Your task to perform on an android device: What's on my calendar tomorrow? Image 0: 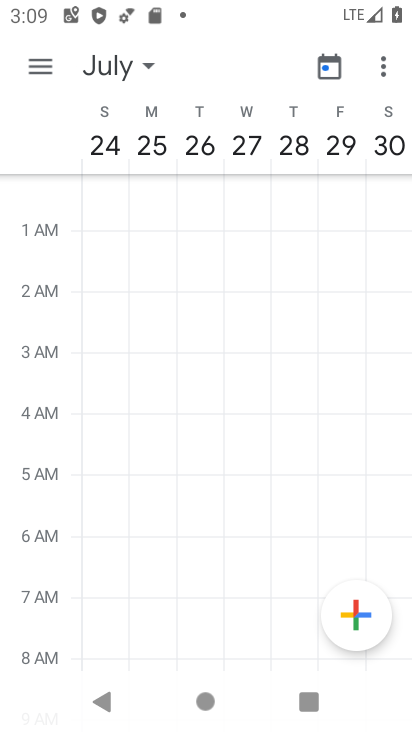
Step 0: drag from (105, 302) to (409, 314)
Your task to perform on an android device: What's on my calendar tomorrow? Image 1: 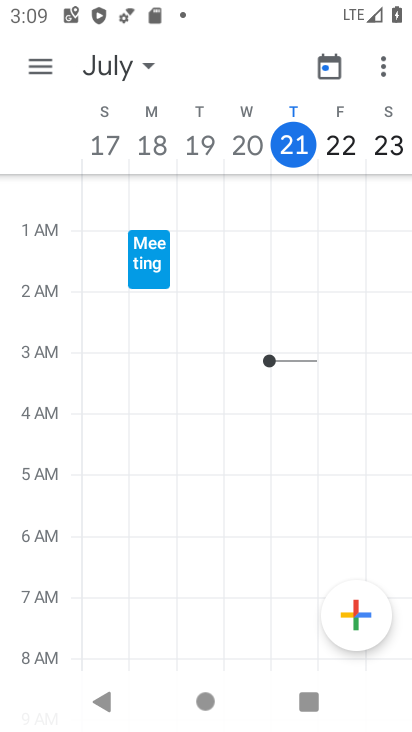
Step 1: click (339, 133)
Your task to perform on an android device: What's on my calendar tomorrow? Image 2: 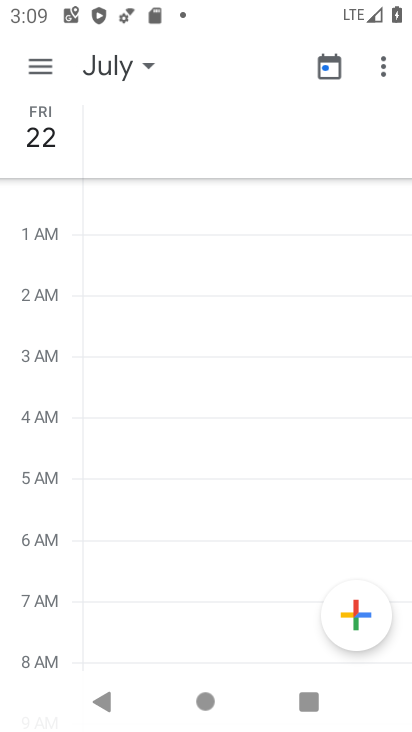
Step 2: task complete